Your task to perform on an android device: empty trash in the gmail app Image 0: 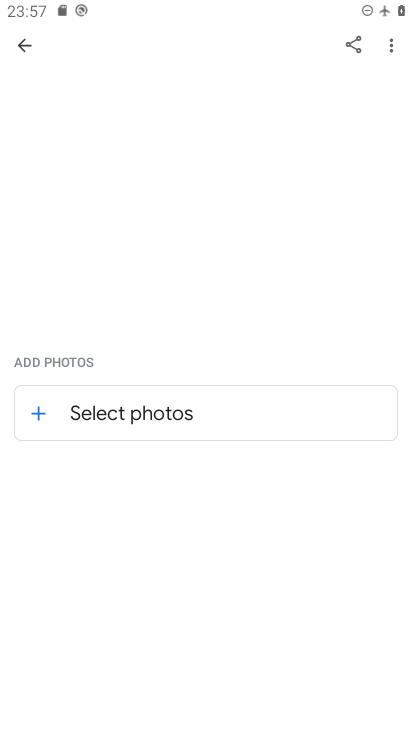
Step 0: press home button
Your task to perform on an android device: empty trash in the gmail app Image 1: 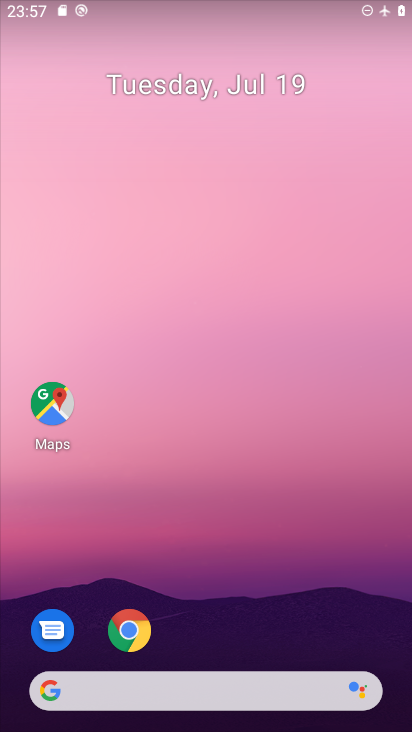
Step 1: drag from (204, 640) to (196, 157)
Your task to perform on an android device: empty trash in the gmail app Image 2: 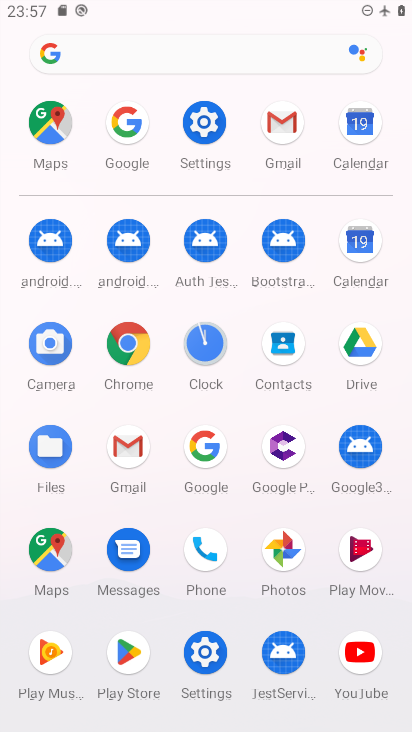
Step 2: click (286, 142)
Your task to perform on an android device: empty trash in the gmail app Image 3: 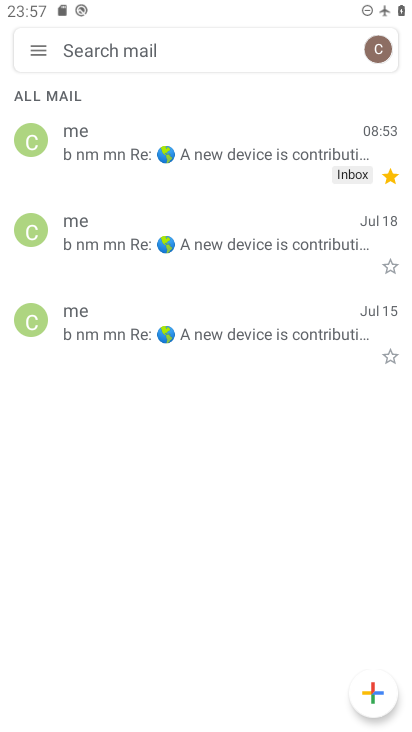
Step 3: click (37, 48)
Your task to perform on an android device: empty trash in the gmail app Image 4: 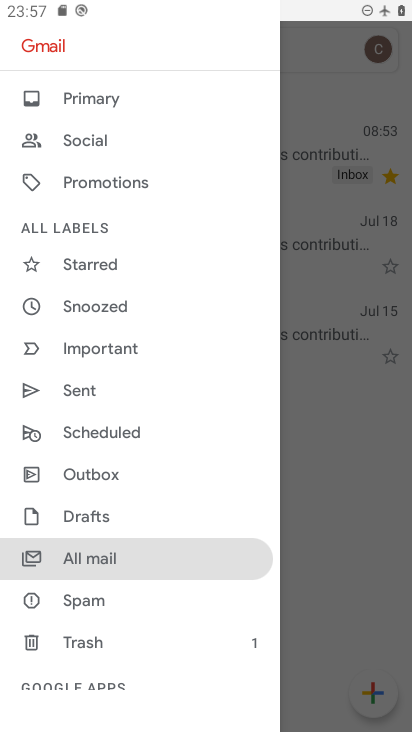
Step 4: click (98, 634)
Your task to perform on an android device: empty trash in the gmail app Image 5: 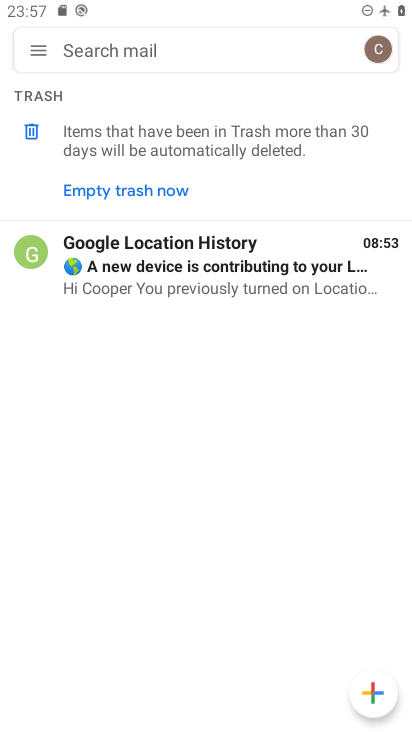
Step 5: click (119, 193)
Your task to perform on an android device: empty trash in the gmail app Image 6: 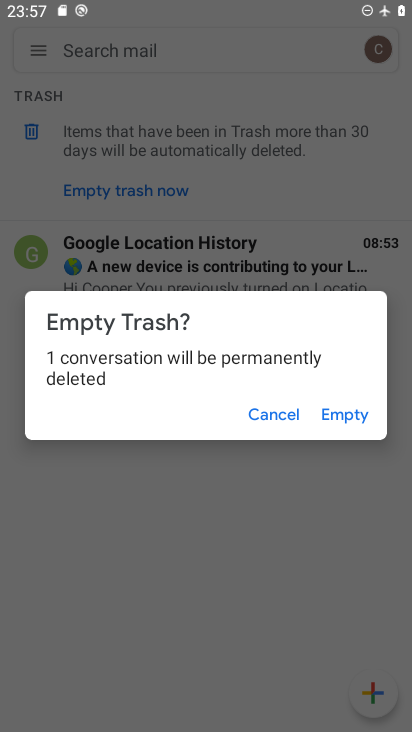
Step 6: click (320, 409)
Your task to perform on an android device: empty trash in the gmail app Image 7: 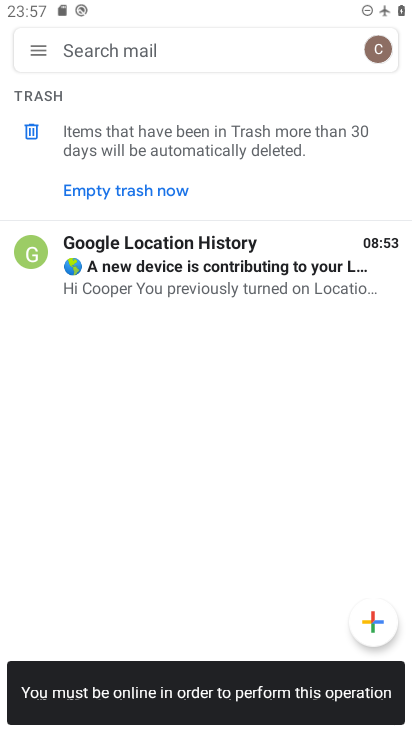
Step 7: task complete